Your task to perform on an android device: Go to battery settings Image 0: 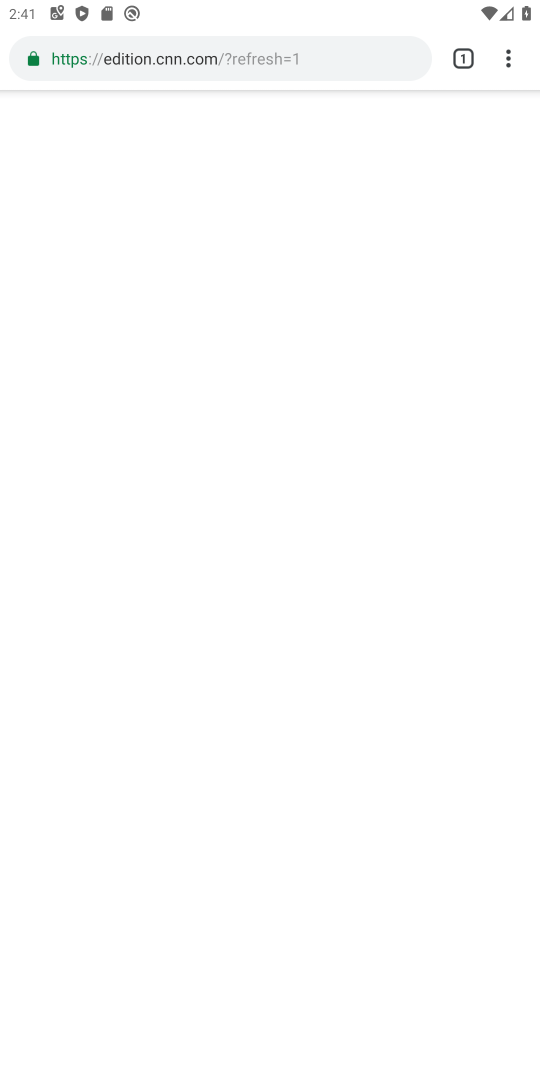
Step 0: press home button
Your task to perform on an android device: Go to battery settings Image 1: 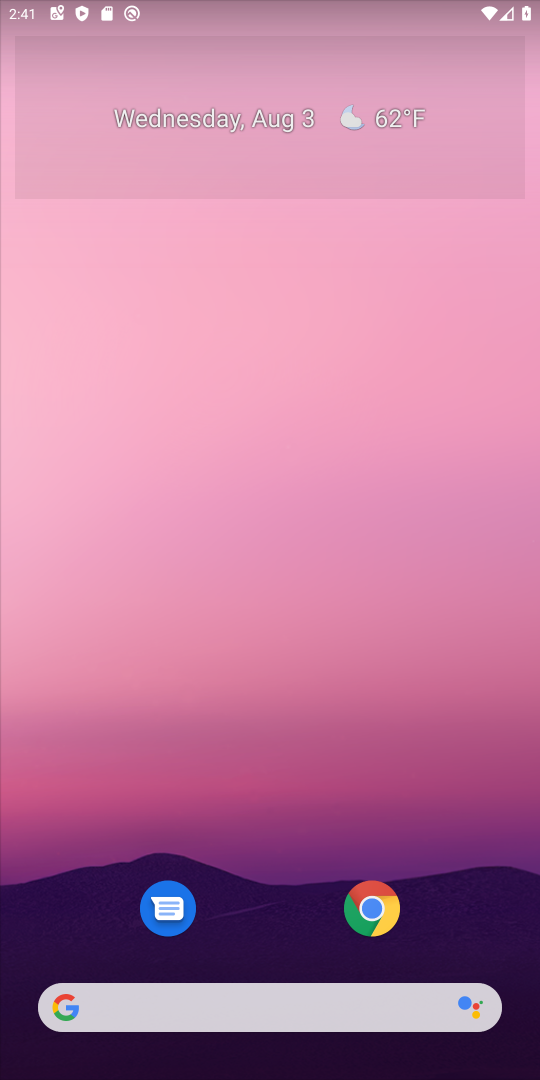
Step 1: drag from (296, 1065) to (241, 343)
Your task to perform on an android device: Go to battery settings Image 2: 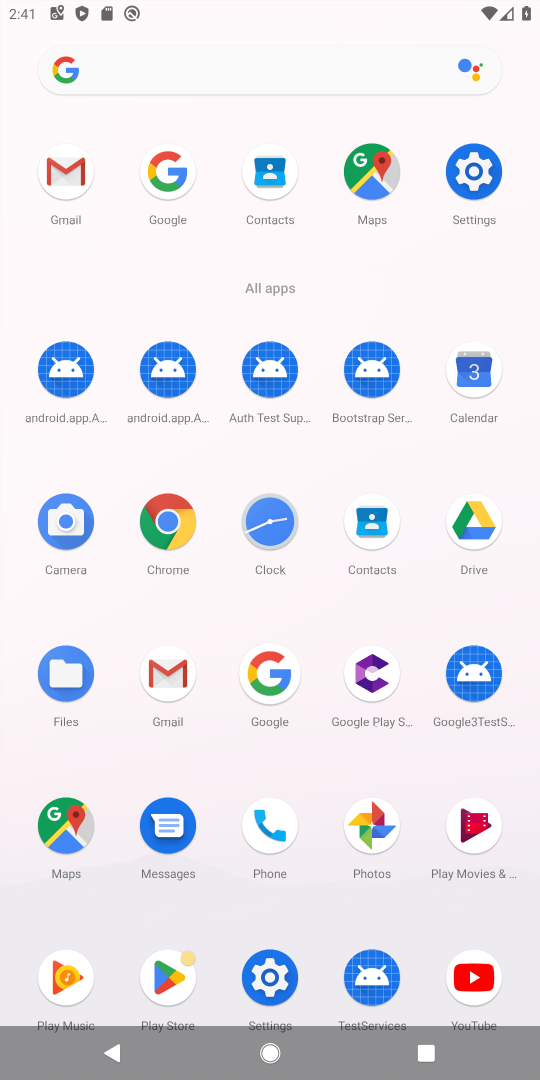
Step 2: click (474, 174)
Your task to perform on an android device: Go to battery settings Image 3: 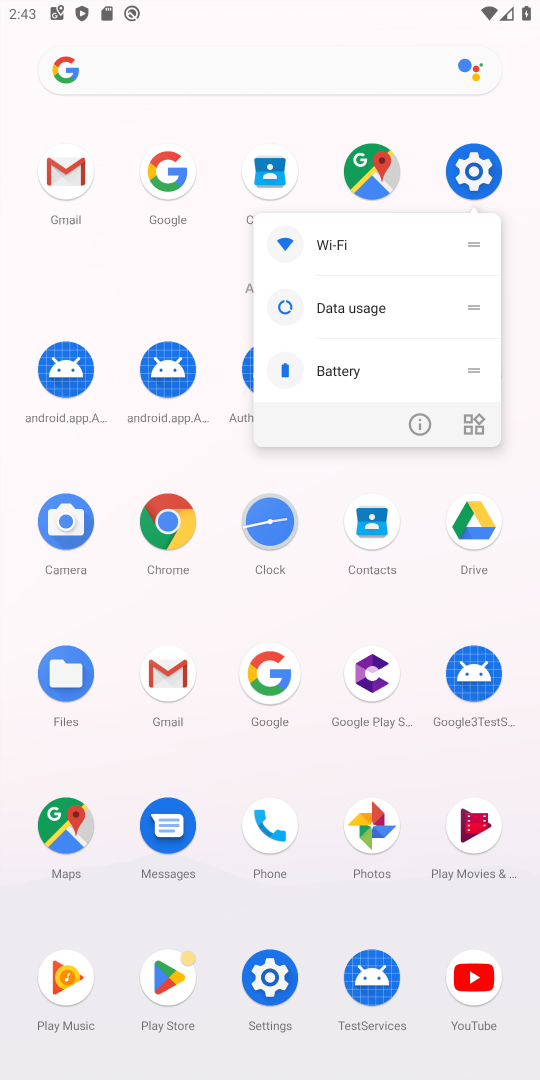
Step 3: click (478, 167)
Your task to perform on an android device: Go to battery settings Image 4: 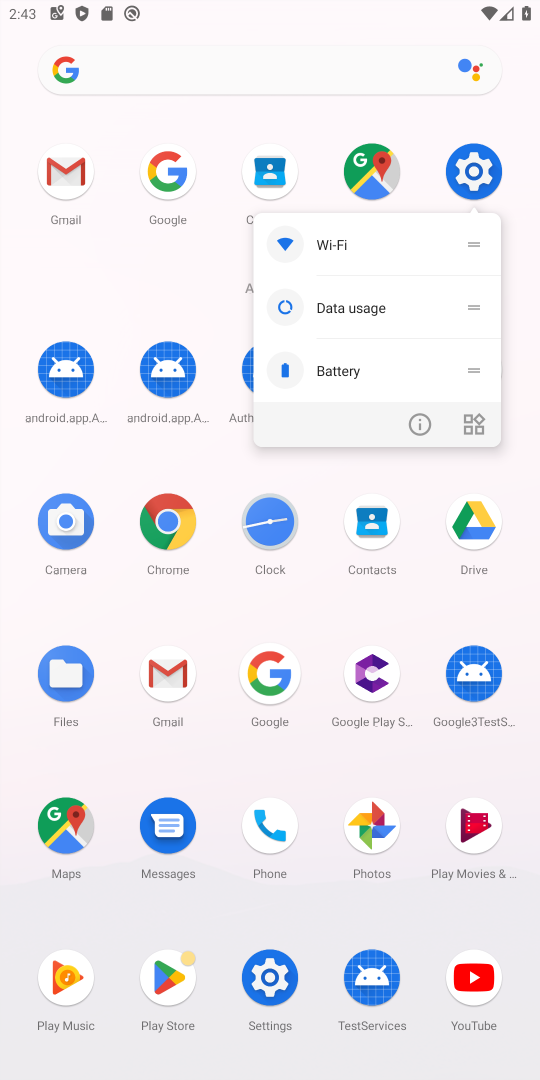
Step 4: click (478, 167)
Your task to perform on an android device: Go to battery settings Image 5: 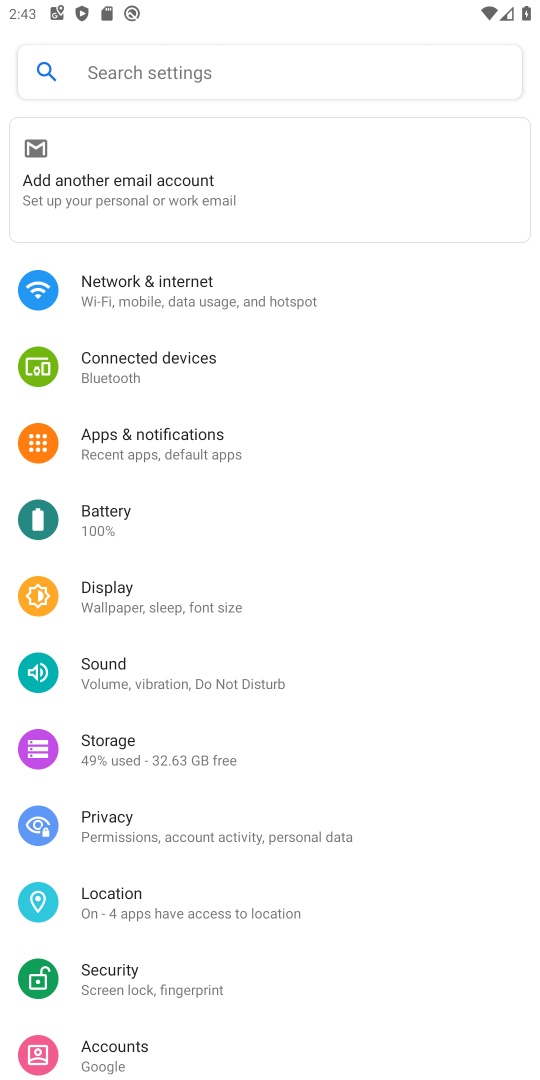
Step 5: click (143, 526)
Your task to perform on an android device: Go to battery settings Image 6: 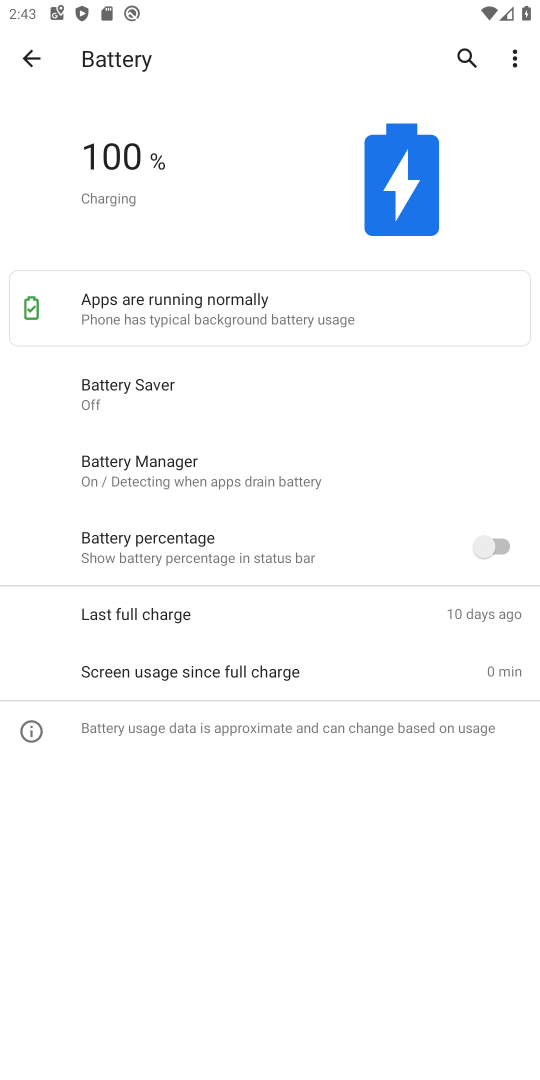
Step 6: task complete